Your task to perform on an android device: Go to wifi settings Image 0: 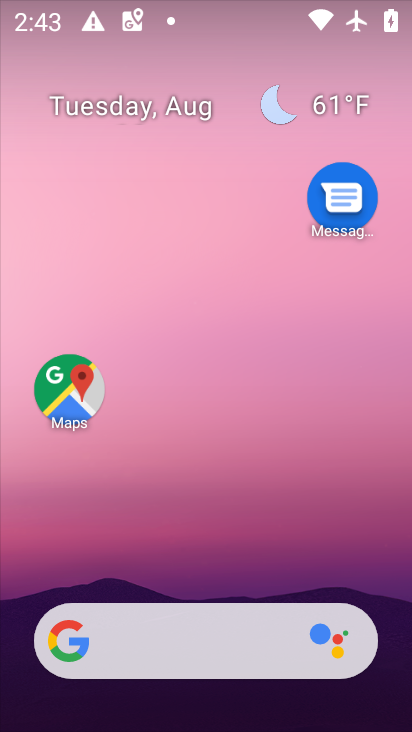
Step 0: drag from (251, 599) to (196, 55)
Your task to perform on an android device: Go to wifi settings Image 1: 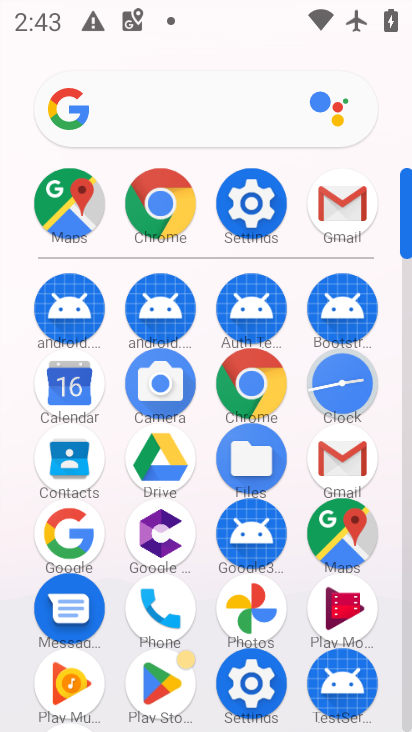
Step 1: click (251, 173)
Your task to perform on an android device: Go to wifi settings Image 2: 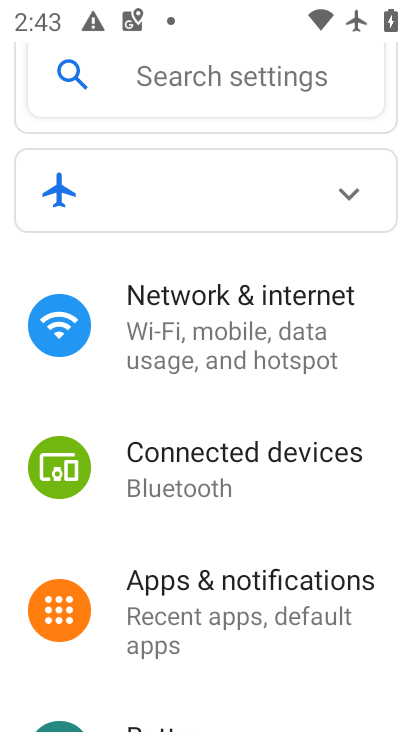
Step 2: click (261, 311)
Your task to perform on an android device: Go to wifi settings Image 3: 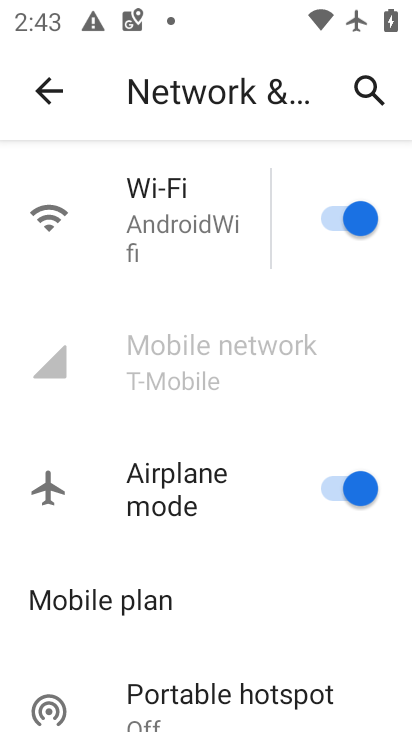
Step 3: task complete